Your task to perform on an android device: Open accessibility settings Image 0: 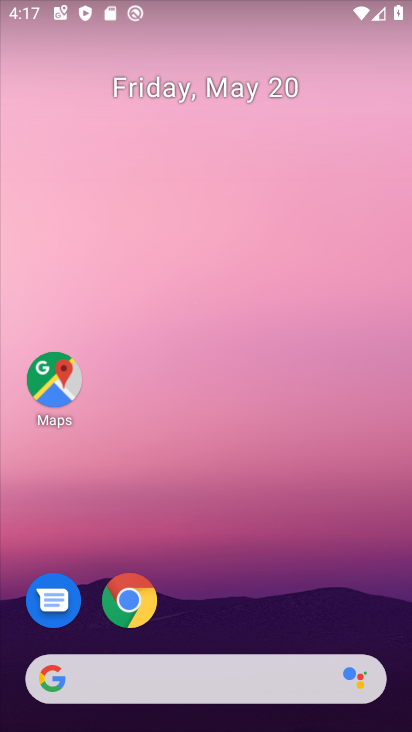
Step 0: drag from (224, 591) to (271, 25)
Your task to perform on an android device: Open accessibility settings Image 1: 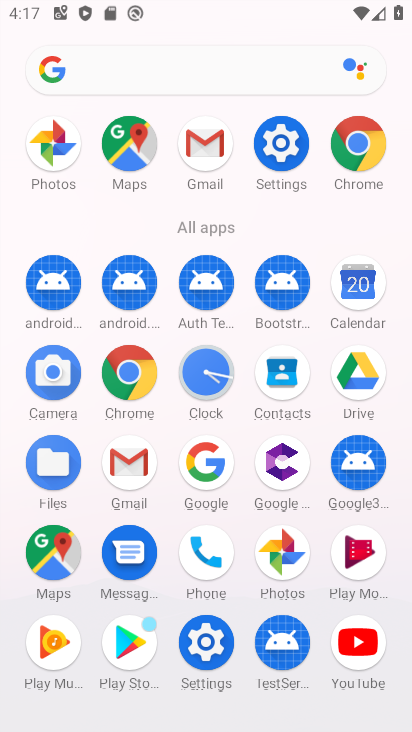
Step 1: click (266, 152)
Your task to perform on an android device: Open accessibility settings Image 2: 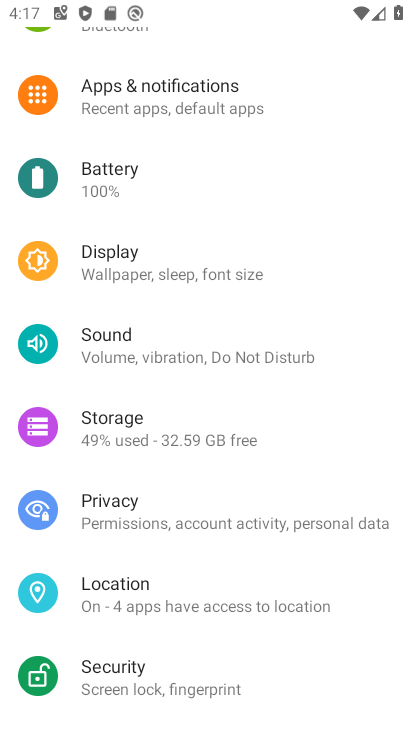
Step 2: drag from (208, 564) to (251, 81)
Your task to perform on an android device: Open accessibility settings Image 3: 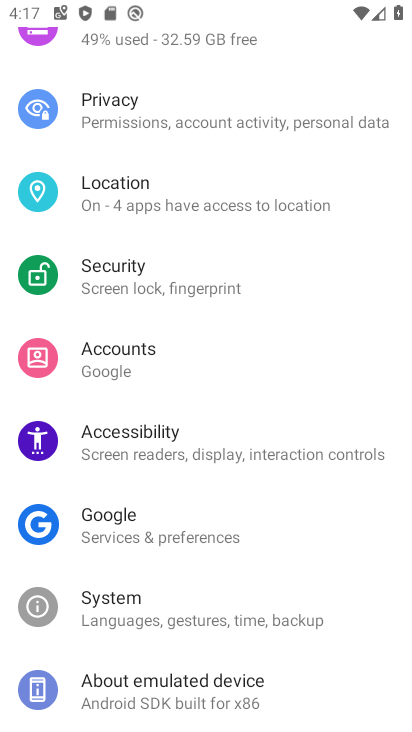
Step 3: click (196, 444)
Your task to perform on an android device: Open accessibility settings Image 4: 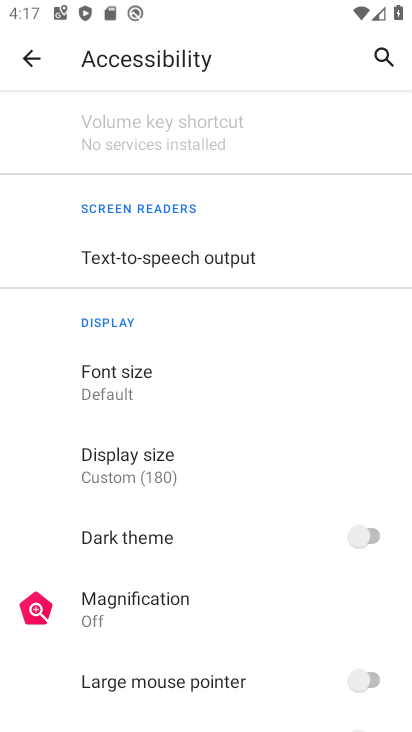
Step 4: task complete